Your task to perform on an android device: Show me popular videos on Youtube Image 0: 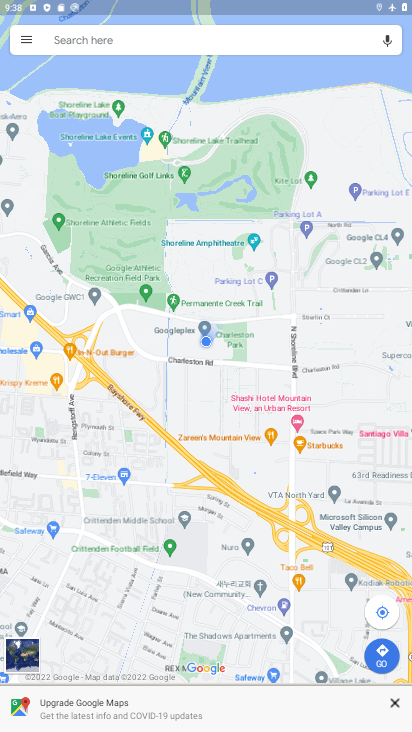
Step 0: press home button
Your task to perform on an android device: Show me popular videos on Youtube Image 1: 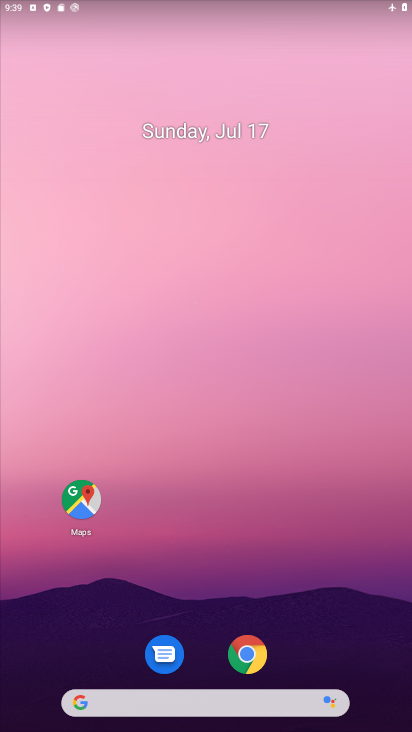
Step 1: drag from (204, 648) to (209, 70)
Your task to perform on an android device: Show me popular videos on Youtube Image 2: 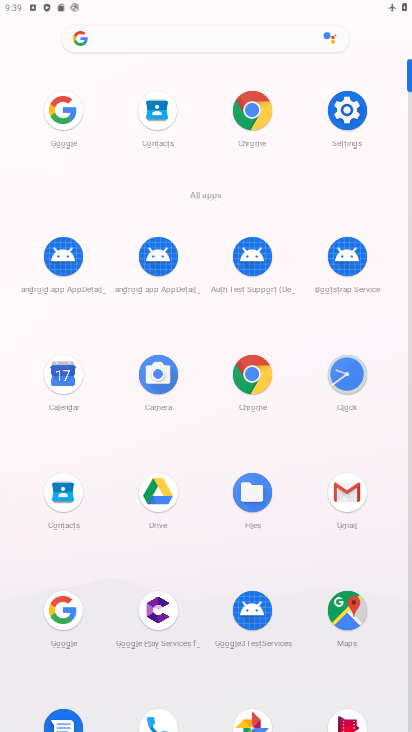
Step 2: drag from (195, 576) to (214, 136)
Your task to perform on an android device: Show me popular videos on Youtube Image 3: 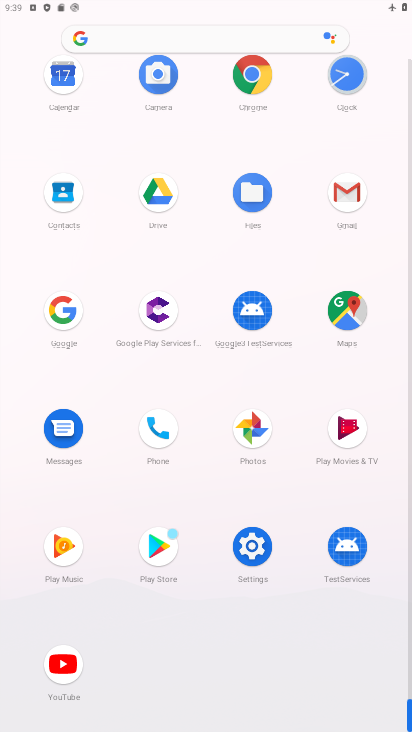
Step 3: click (55, 675)
Your task to perform on an android device: Show me popular videos on Youtube Image 4: 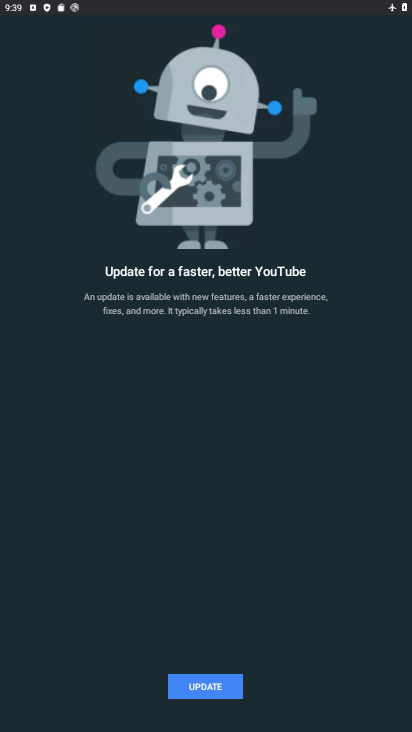
Step 4: click (214, 679)
Your task to perform on an android device: Show me popular videos on Youtube Image 5: 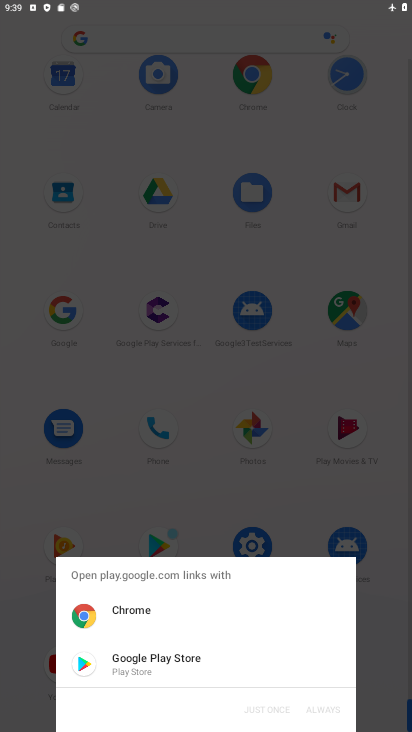
Step 5: click (154, 658)
Your task to perform on an android device: Show me popular videos on Youtube Image 6: 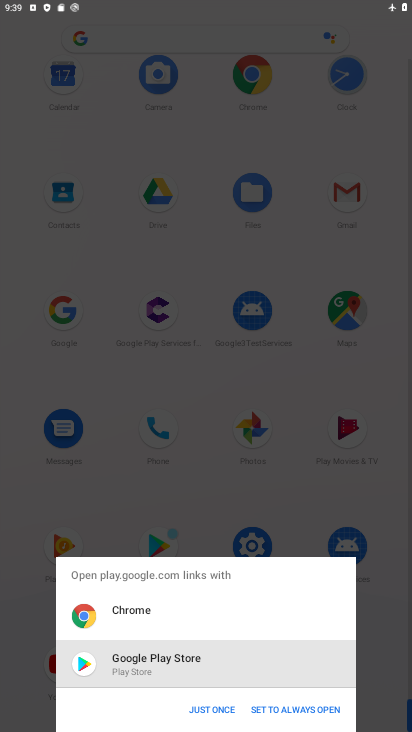
Step 6: click (197, 705)
Your task to perform on an android device: Show me popular videos on Youtube Image 7: 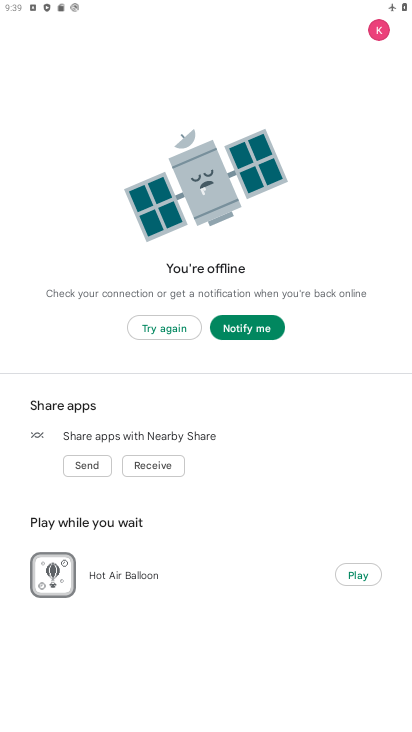
Step 7: click (166, 319)
Your task to perform on an android device: Show me popular videos on Youtube Image 8: 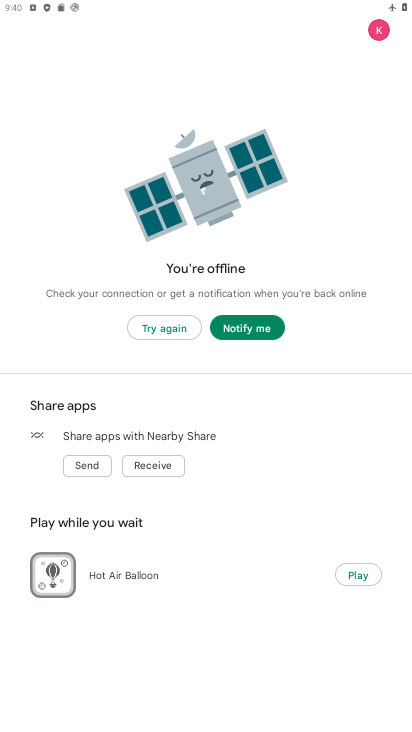
Step 8: task complete